Your task to perform on an android device: refresh tabs in the chrome app Image 0: 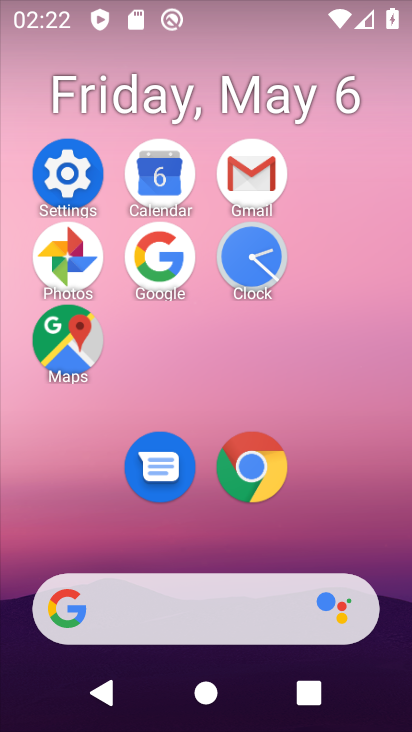
Step 0: click (255, 476)
Your task to perform on an android device: refresh tabs in the chrome app Image 1: 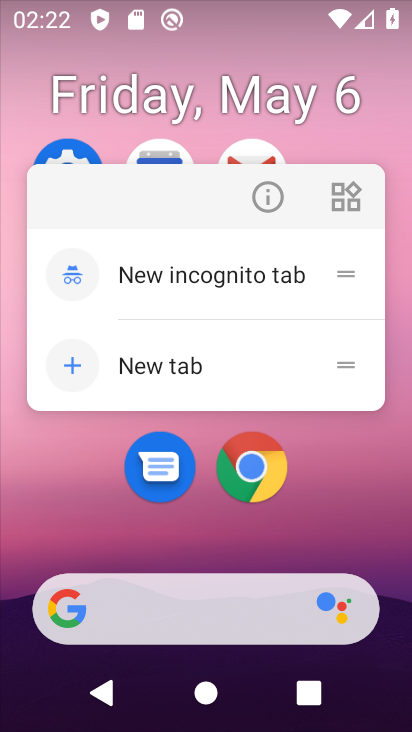
Step 1: click (255, 476)
Your task to perform on an android device: refresh tabs in the chrome app Image 2: 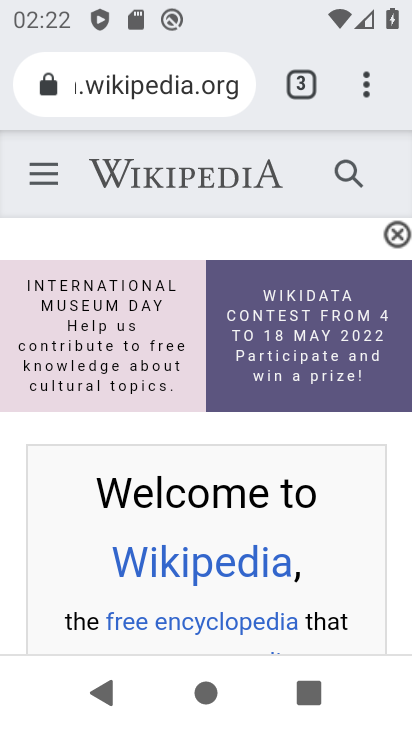
Step 2: click (375, 79)
Your task to perform on an android device: refresh tabs in the chrome app Image 3: 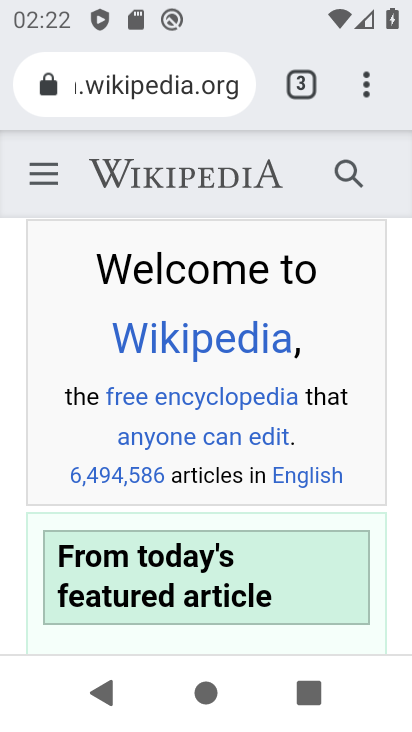
Step 3: click (374, 79)
Your task to perform on an android device: refresh tabs in the chrome app Image 4: 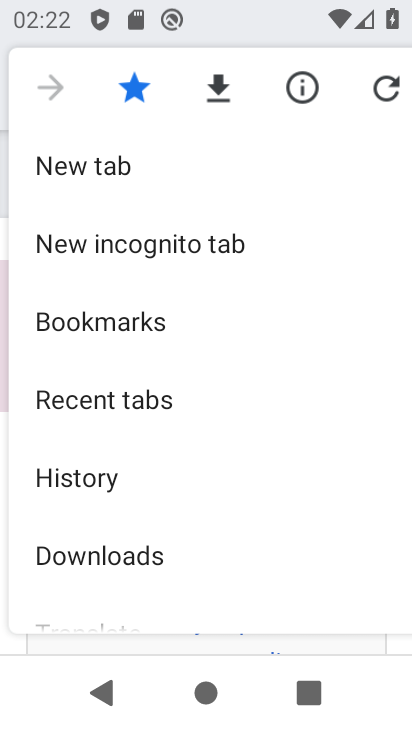
Step 4: click (374, 79)
Your task to perform on an android device: refresh tabs in the chrome app Image 5: 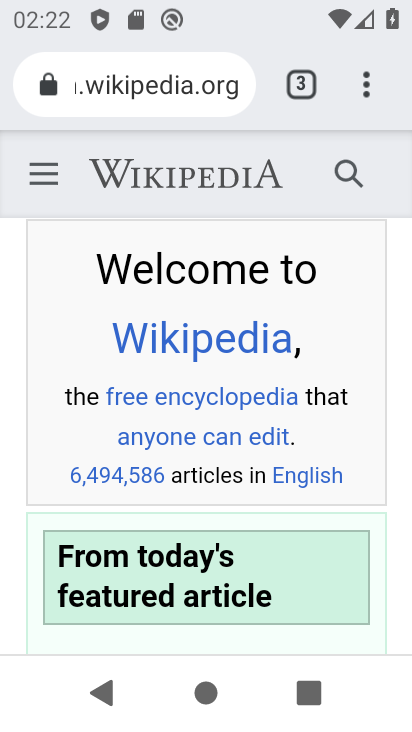
Step 5: task complete